Your task to perform on an android device: Go to Reddit.com Image 0: 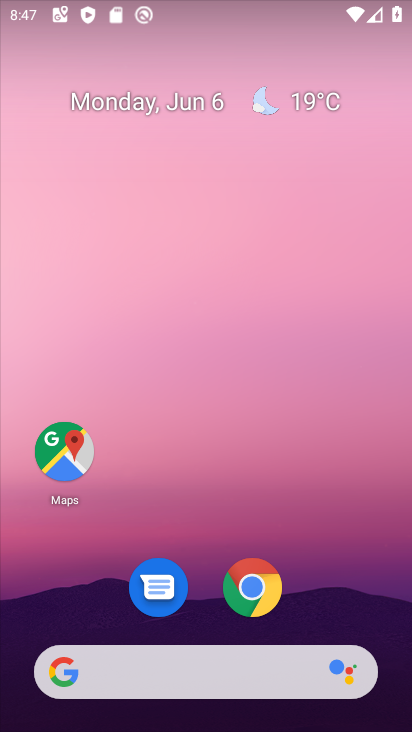
Step 0: click (153, 679)
Your task to perform on an android device: Go to Reddit.com Image 1: 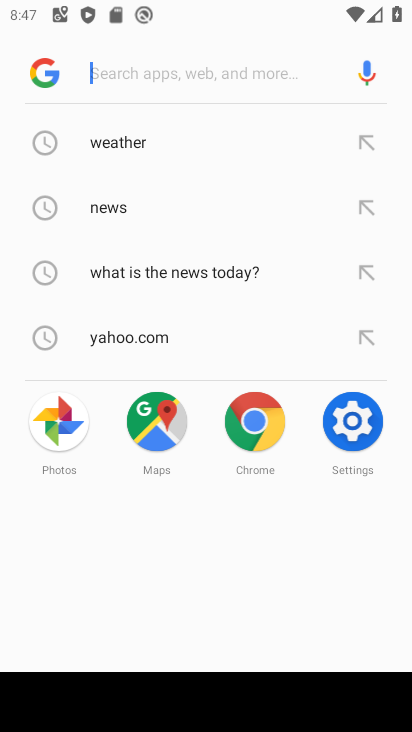
Step 1: type "Reddit.com"
Your task to perform on an android device: Go to Reddit.com Image 2: 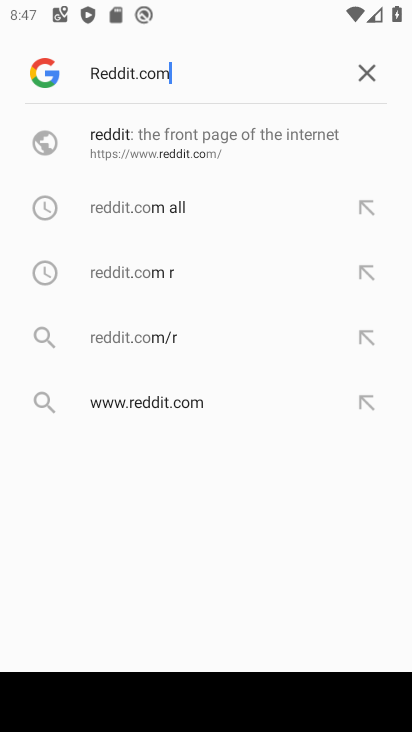
Step 2: click (198, 154)
Your task to perform on an android device: Go to Reddit.com Image 3: 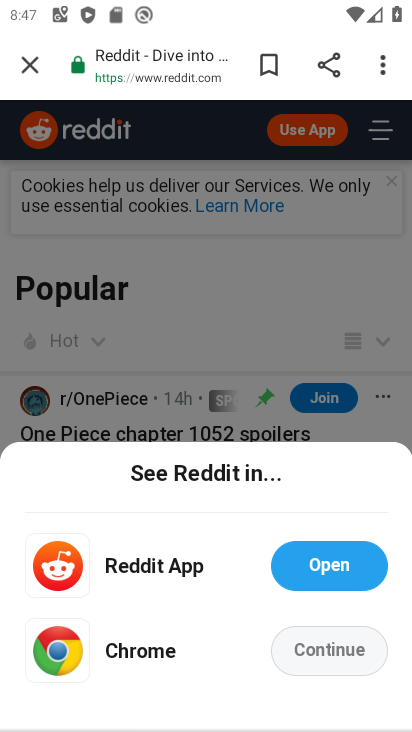
Step 3: click (312, 634)
Your task to perform on an android device: Go to Reddit.com Image 4: 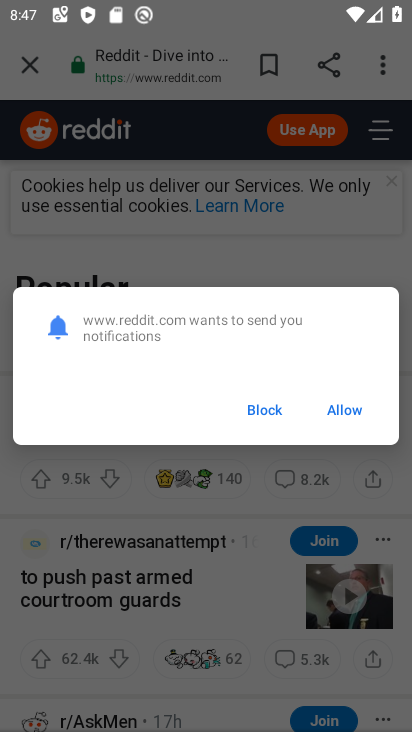
Step 4: click (352, 422)
Your task to perform on an android device: Go to Reddit.com Image 5: 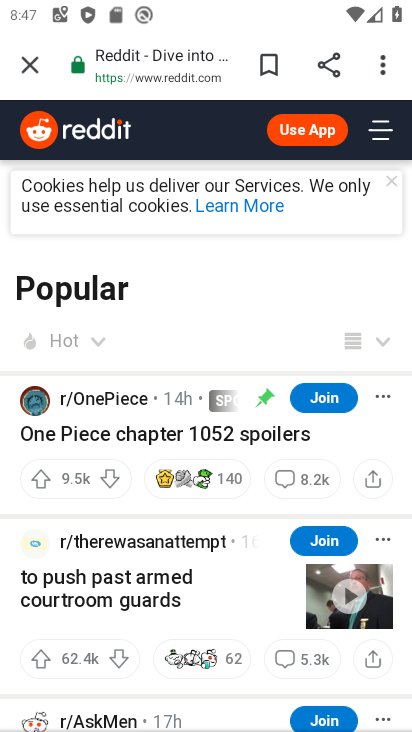
Step 5: task complete